Your task to perform on an android device: Open calendar and show me the first week of next month Image 0: 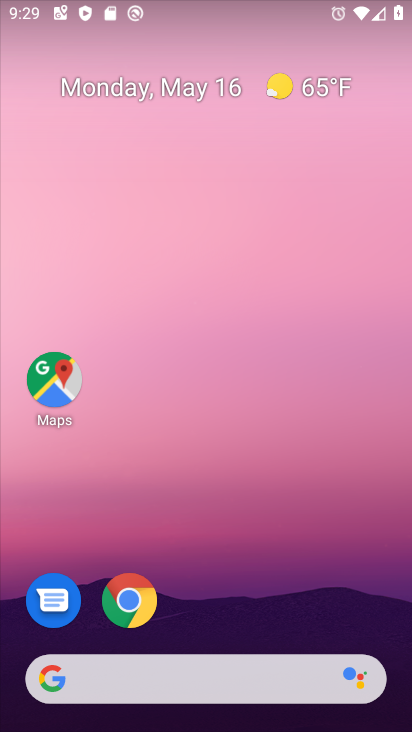
Step 0: click (362, 3)
Your task to perform on an android device: Open calendar and show me the first week of next month Image 1: 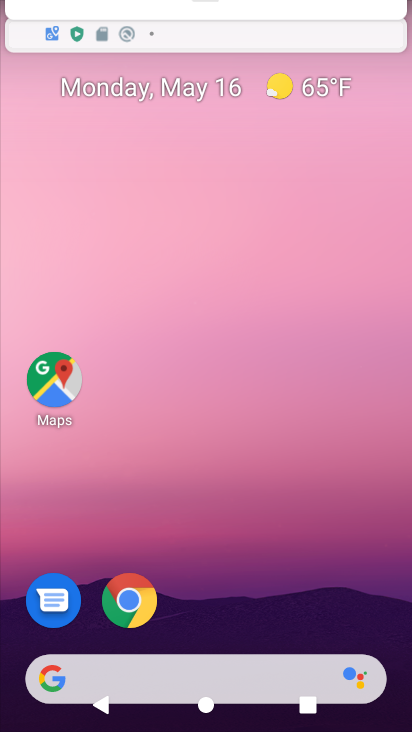
Step 1: drag from (192, 616) to (238, 300)
Your task to perform on an android device: Open calendar and show me the first week of next month Image 2: 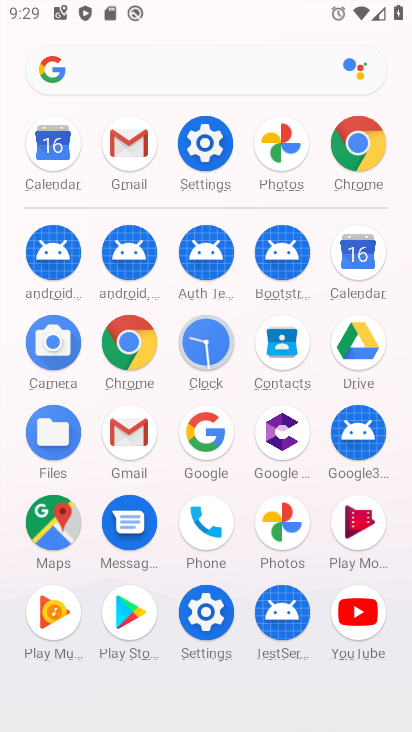
Step 2: drag from (241, 641) to (250, 369)
Your task to perform on an android device: Open calendar and show me the first week of next month Image 3: 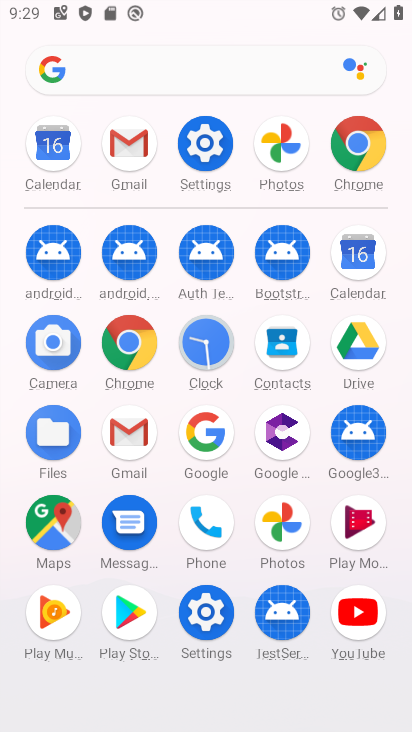
Step 3: click (364, 246)
Your task to perform on an android device: Open calendar and show me the first week of next month Image 4: 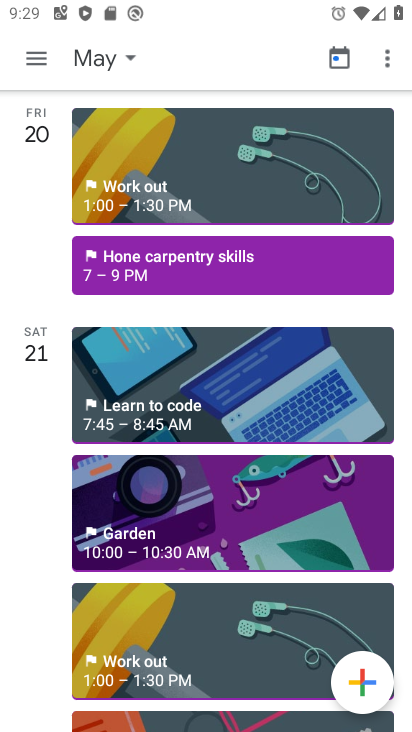
Step 4: click (120, 59)
Your task to perform on an android device: Open calendar and show me the first week of next month Image 5: 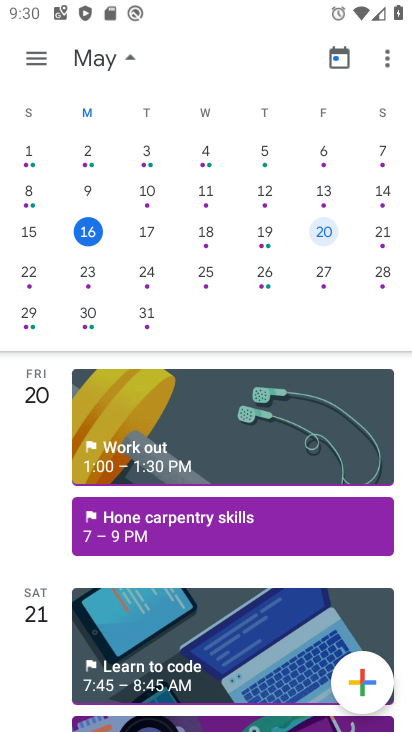
Step 5: drag from (374, 204) to (12, 265)
Your task to perform on an android device: Open calendar and show me the first week of next month Image 6: 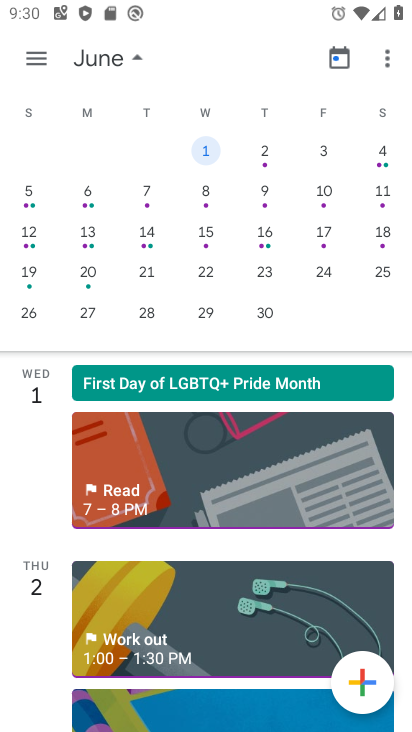
Step 6: click (317, 145)
Your task to perform on an android device: Open calendar and show me the first week of next month Image 7: 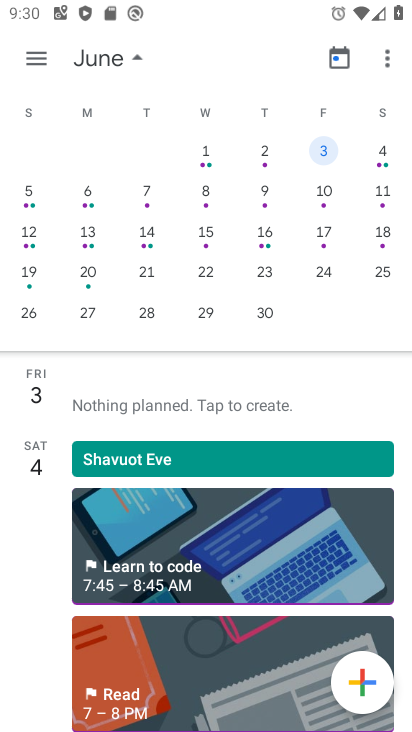
Step 7: task complete